Your task to perform on an android device: Open the calendar app, open the side menu, and click the "Day" option Image 0: 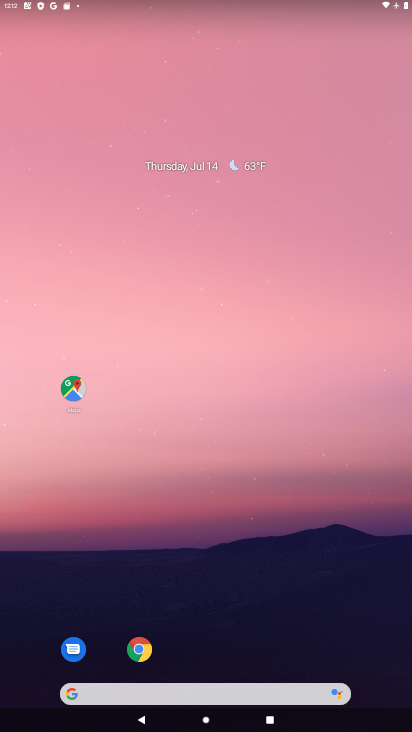
Step 0: drag from (169, 626) to (207, 259)
Your task to perform on an android device: Open the calendar app, open the side menu, and click the "Day" option Image 1: 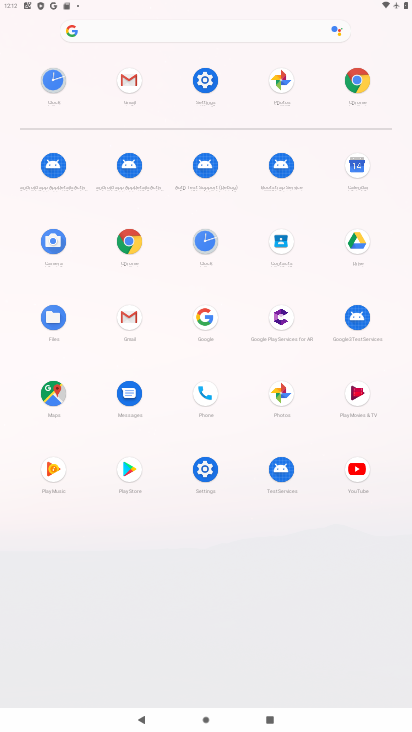
Step 1: click (349, 158)
Your task to perform on an android device: Open the calendar app, open the side menu, and click the "Day" option Image 2: 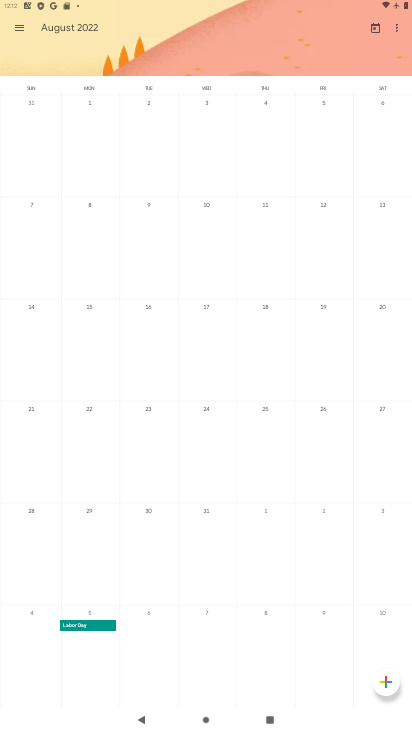
Step 2: drag from (52, 452) to (410, 521)
Your task to perform on an android device: Open the calendar app, open the side menu, and click the "Day" option Image 3: 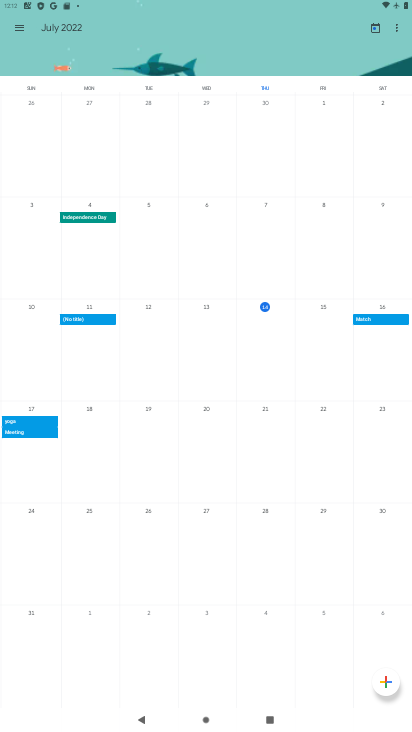
Step 3: click (14, 20)
Your task to perform on an android device: Open the calendar app, open the side menu, and click the "Day" option Image 4: 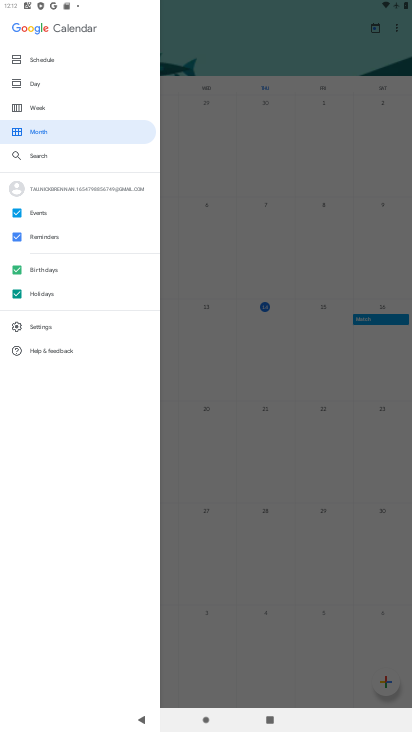
Step 4: click (62, 88)
Your task to perform on an android device: Open the calendar app, open the side menu, and click the "Day" option Image 5: 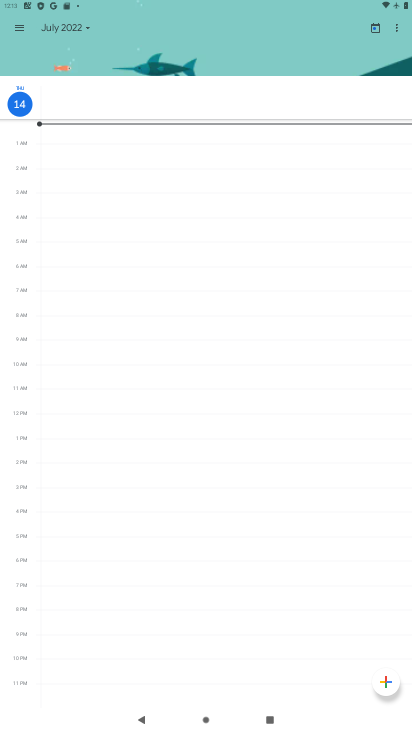
Step 5: click (14, 23)
Your task to perform on an android device: Open the calendar app, open the side menu, and click the "Day" option Image 6: 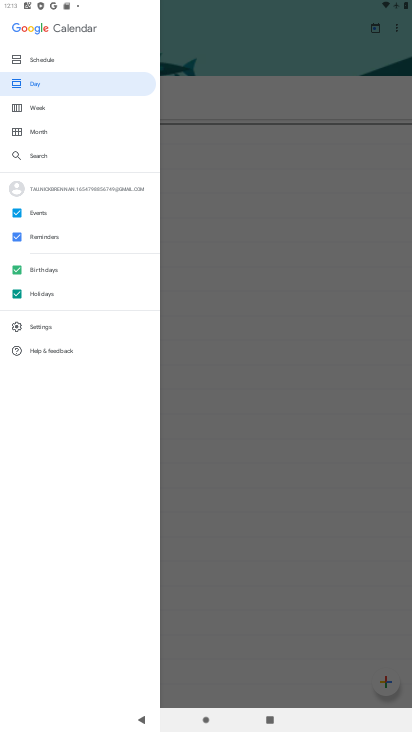
Step 6: task complete